Your task to perform on an android device: Go to settings Image 0: 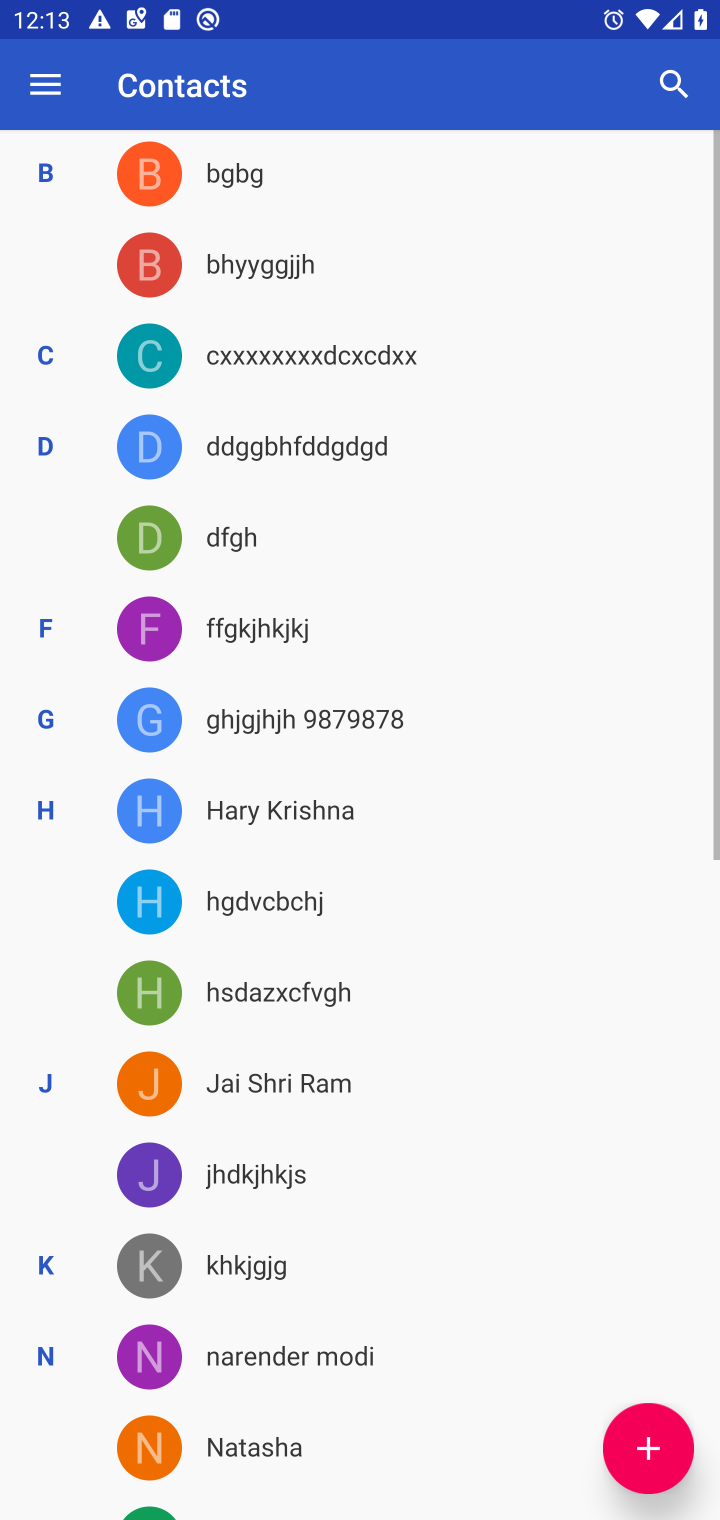
Step 0: press home button
Your task to perform on an android device: Go to settings Image 1: 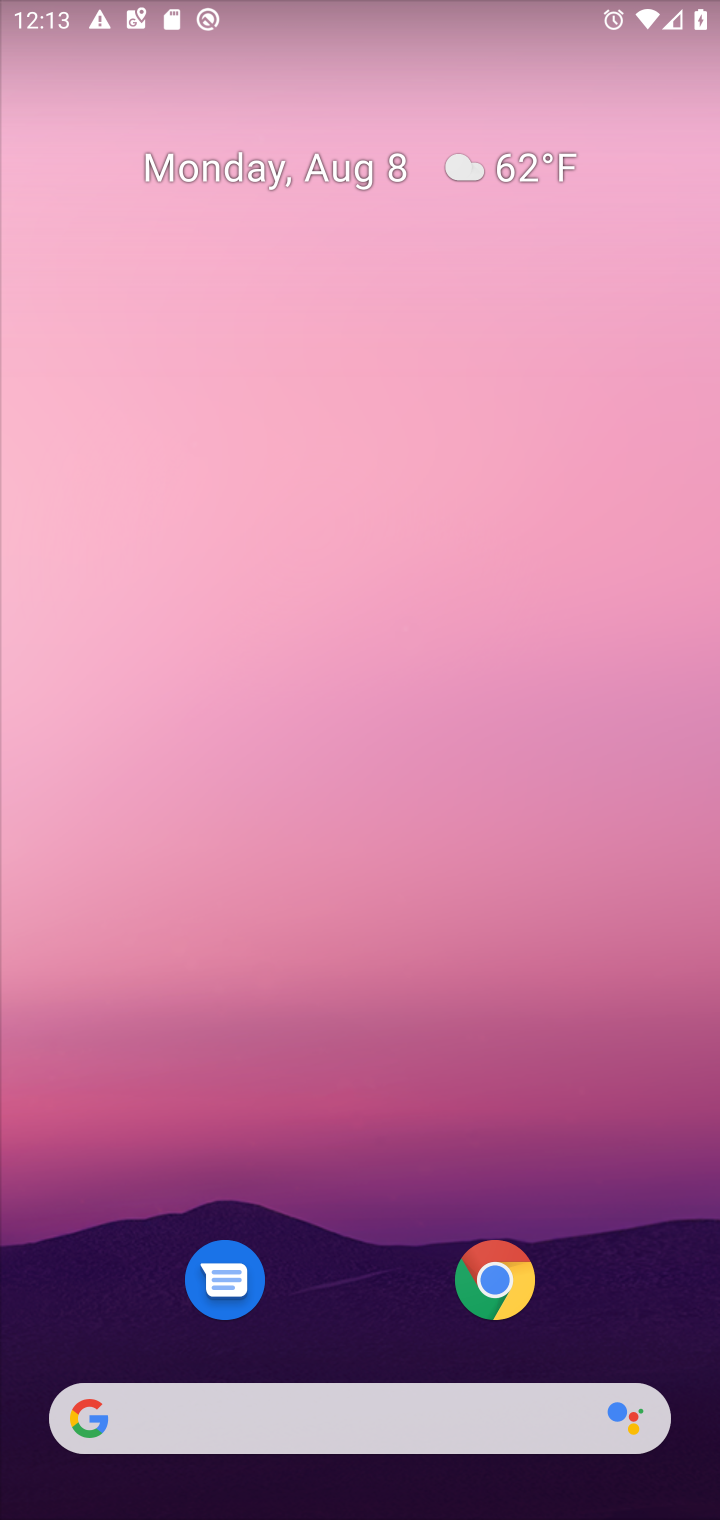
Step 1: drag from (319, 996) to (284, 38)
Your task to perform on an android device: Go to settings Image 2: 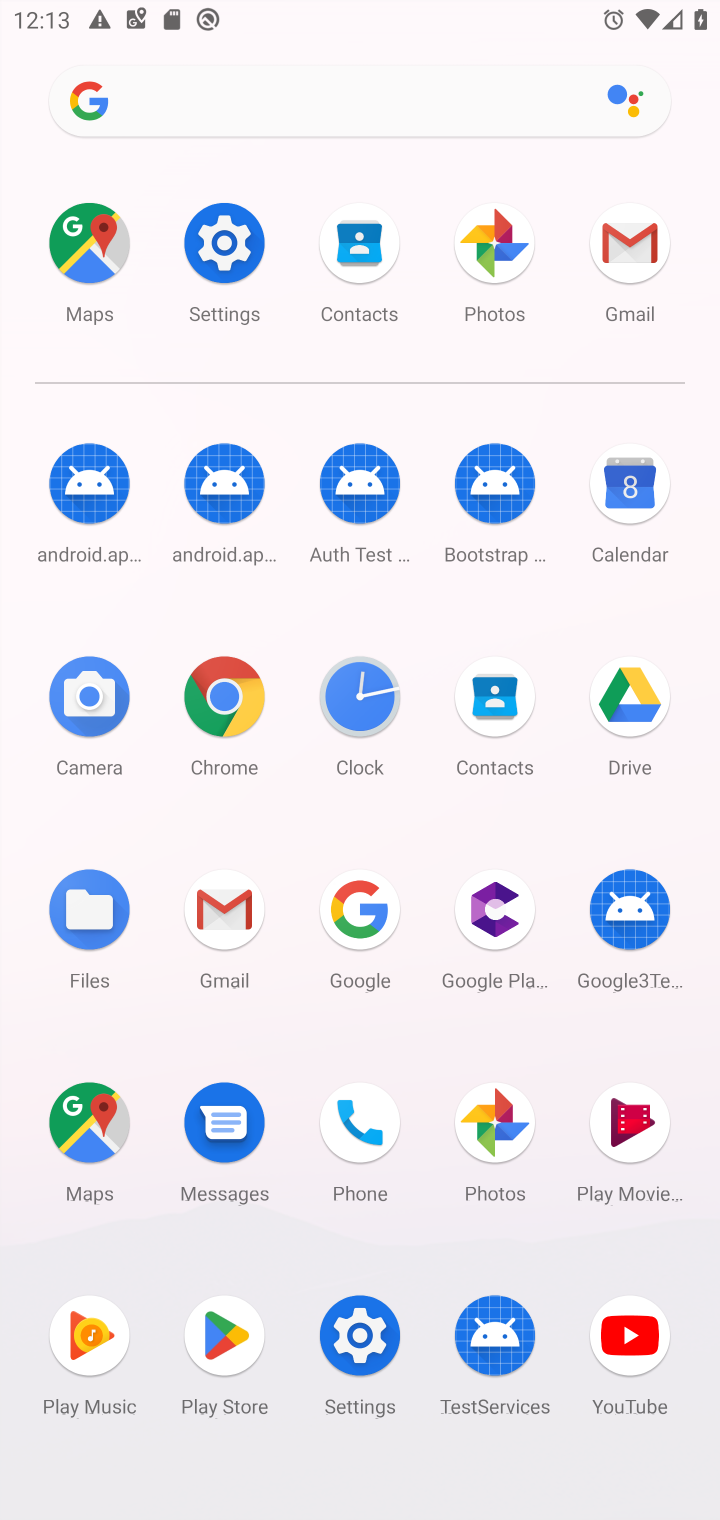
Step 2: click (227, 246)
Your task to perform on an android device: Go to settings Image 3: 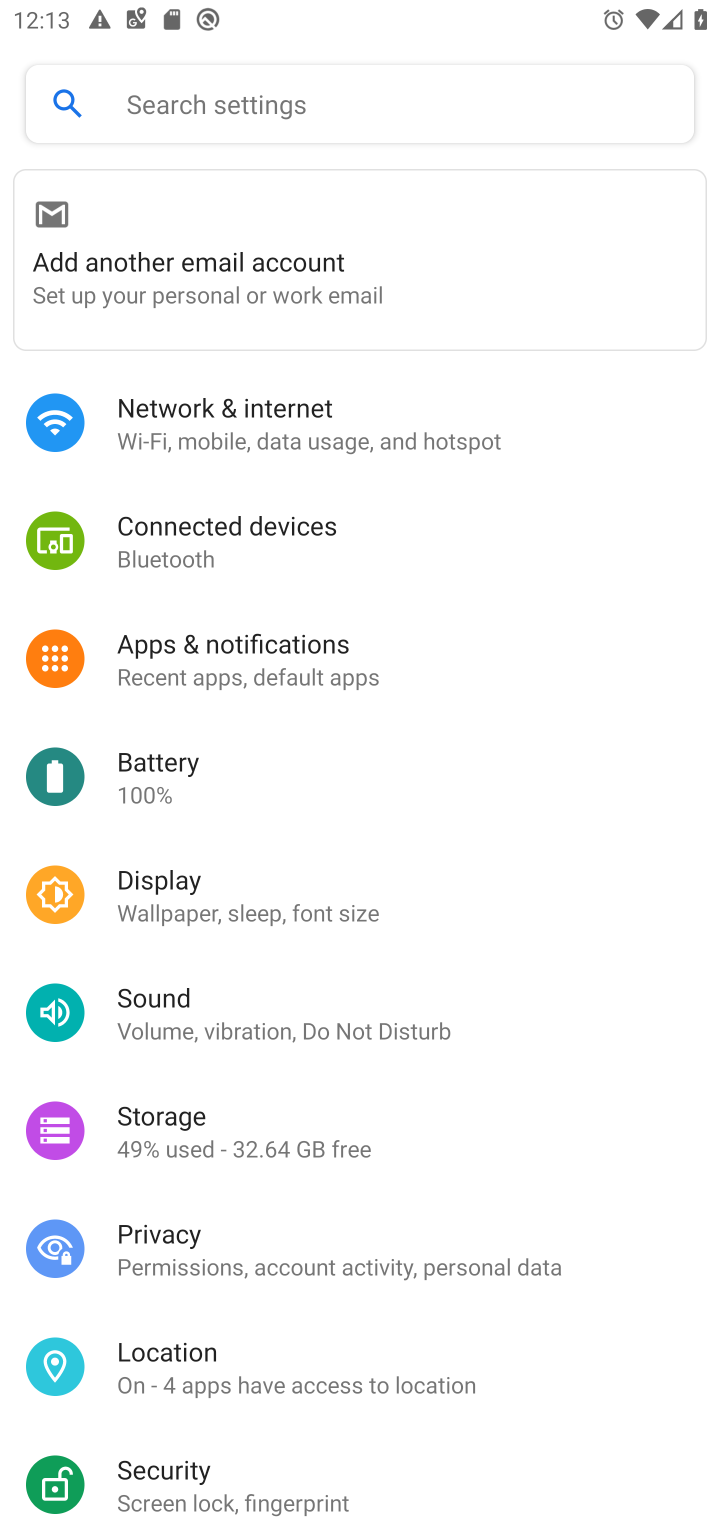
Step 3: task complete